Your task to perform on an android device: open app "Google Docs" Image 0: 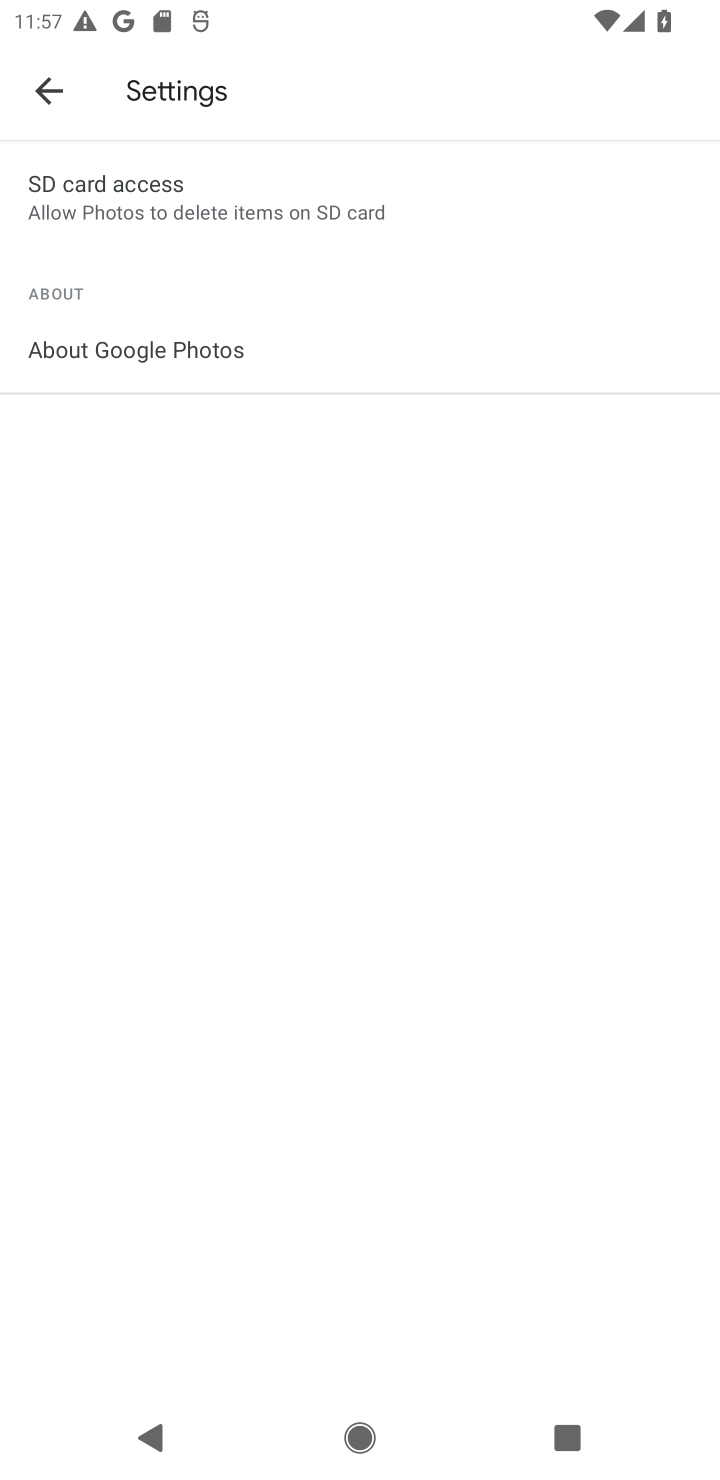
Step 0: press back button
Your task to perform on an android device: open app "Google Docs" Image 1: 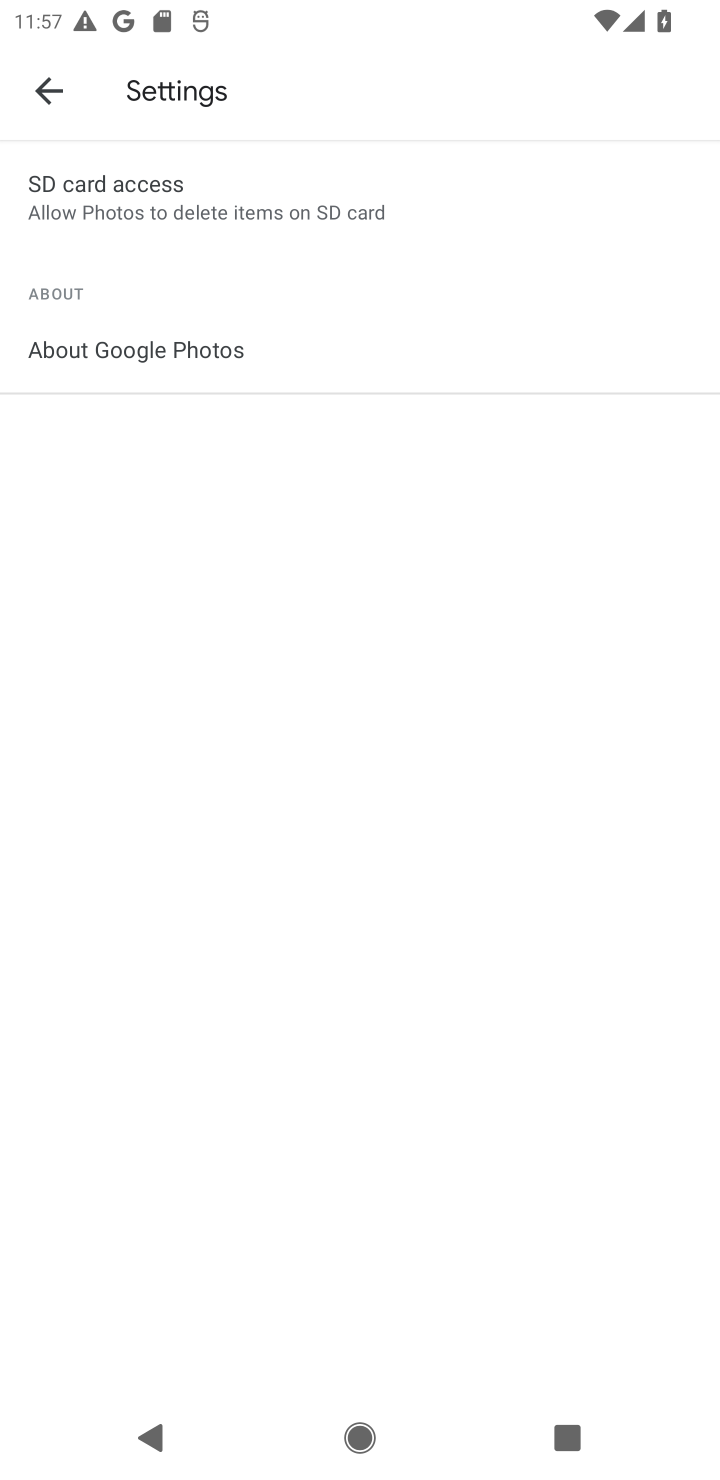
Step 1: press home button
Your task to perform on an android device: open app "Google Docs" Image 2: 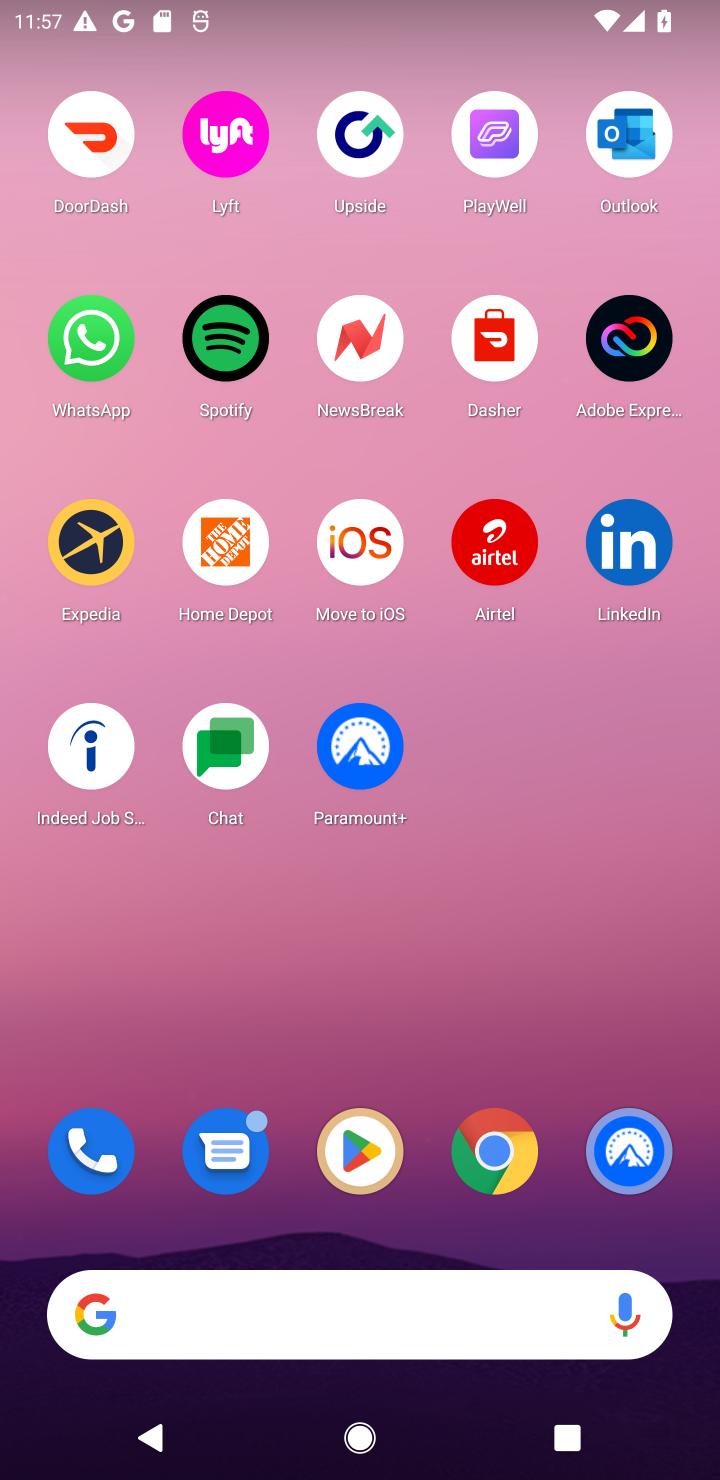
Step 2: click (351, 1118)
Your task to perform on an android device: open app "Google Docs" Image 3: 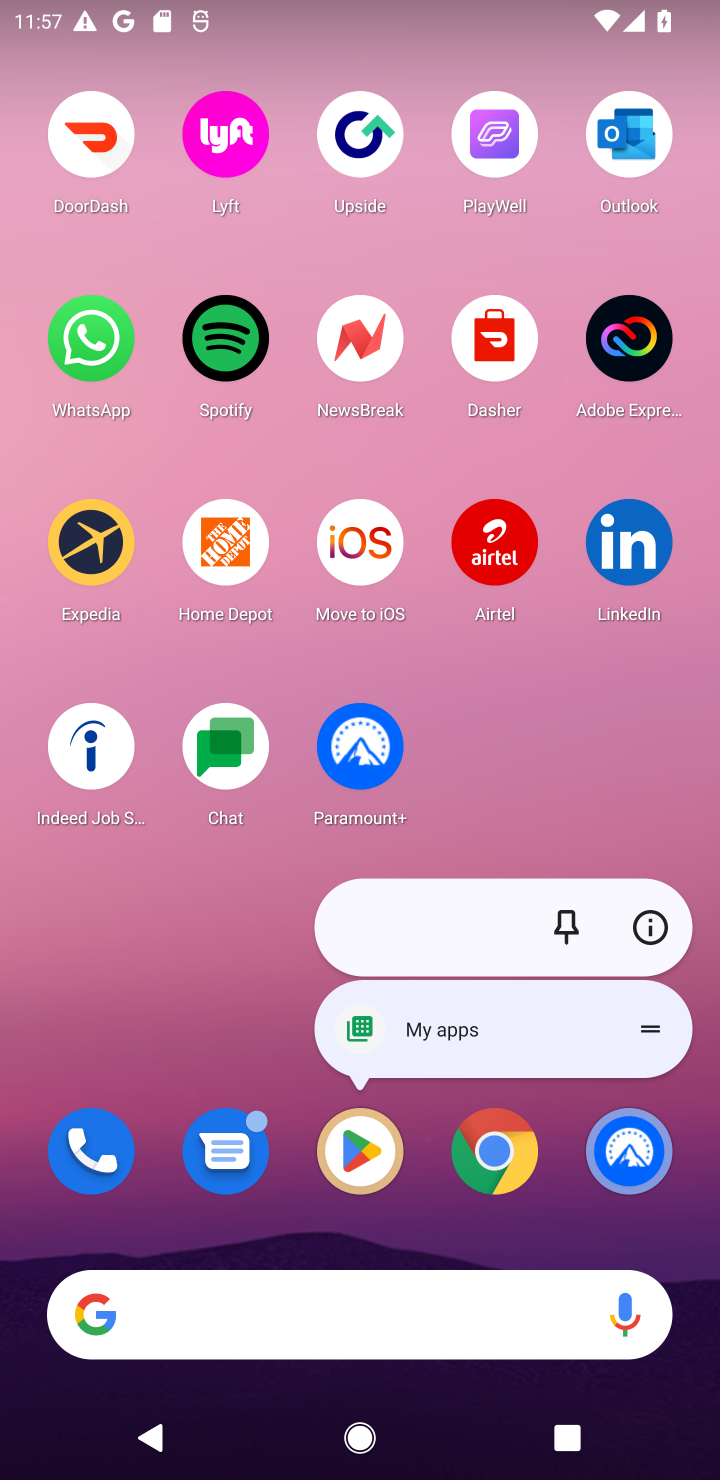
Step 3: click (360, 1134)
Your task to perform on an android device: open app "Google Docs" Image 4: 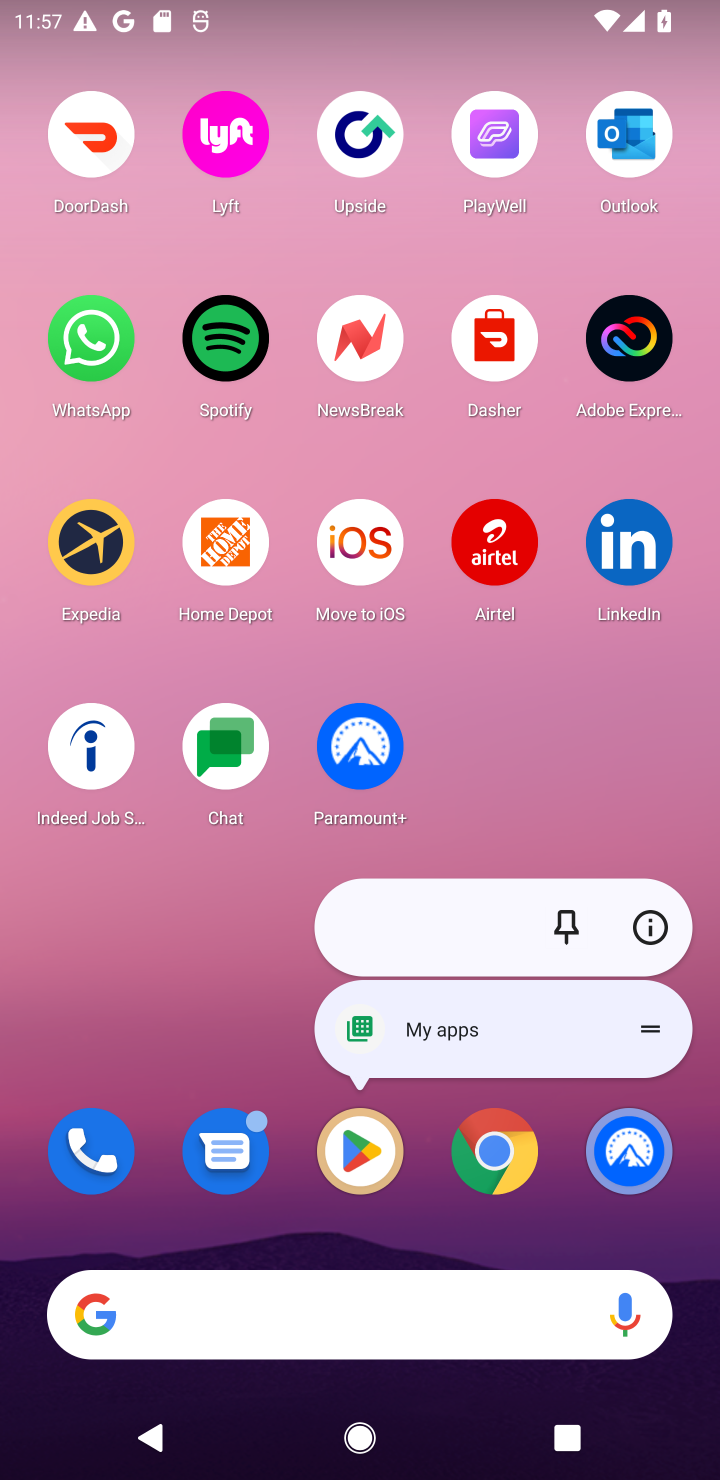
Step 4: click (360, 1134)
Your task to perform on an android device: open app "Google Docs" Image 5: 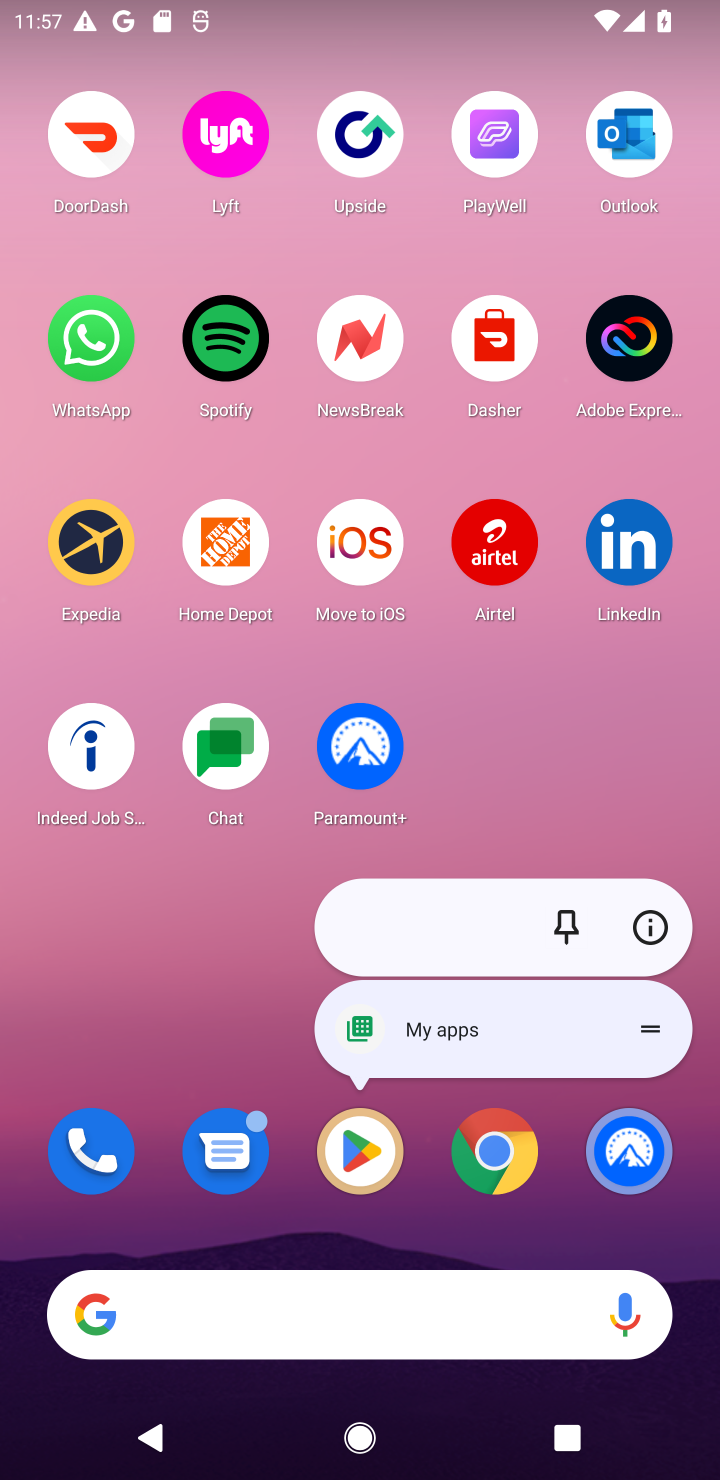
Step 5: click (358, 1162)
Your task to perform on an android device: open app "Google Docs" Image 6: 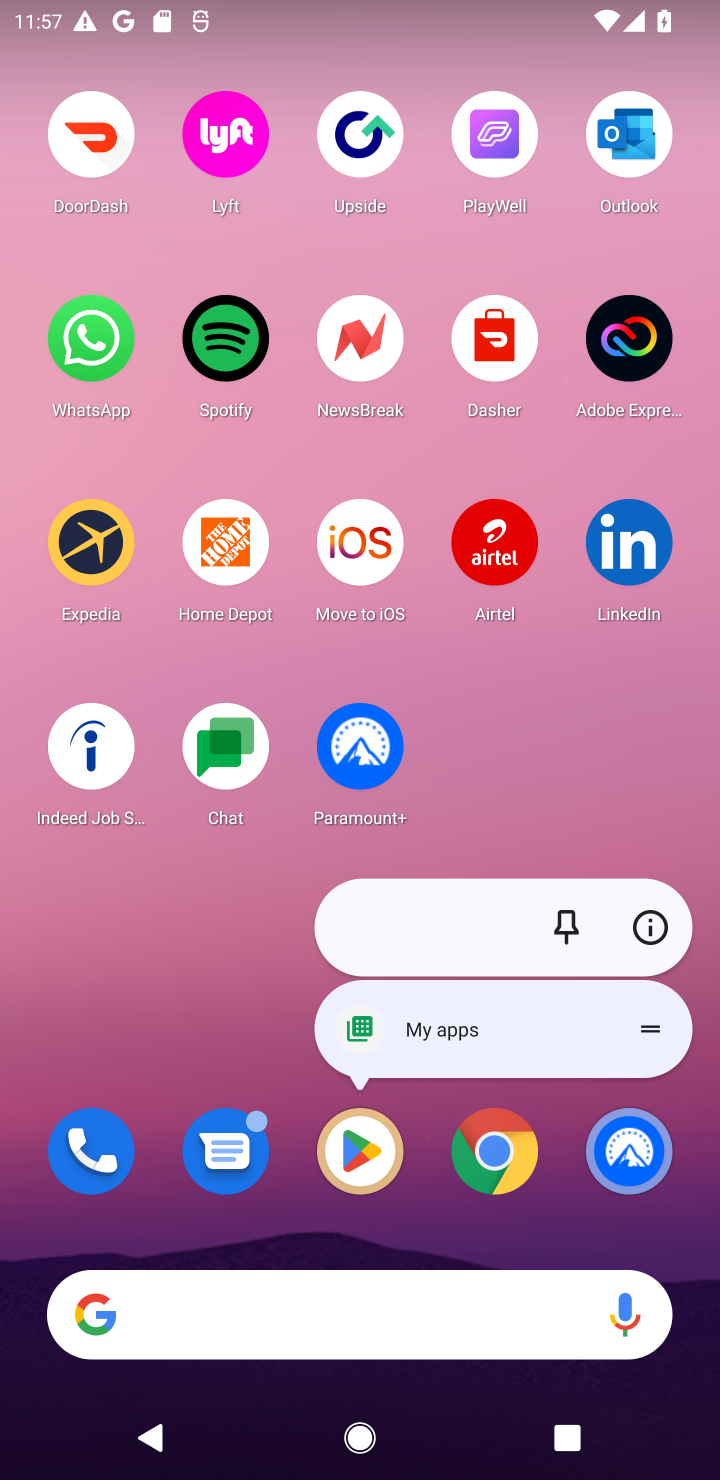
Step 6: click (360, 1169)
Your task to perform on an android device: open app "Google Docs" Image 7: 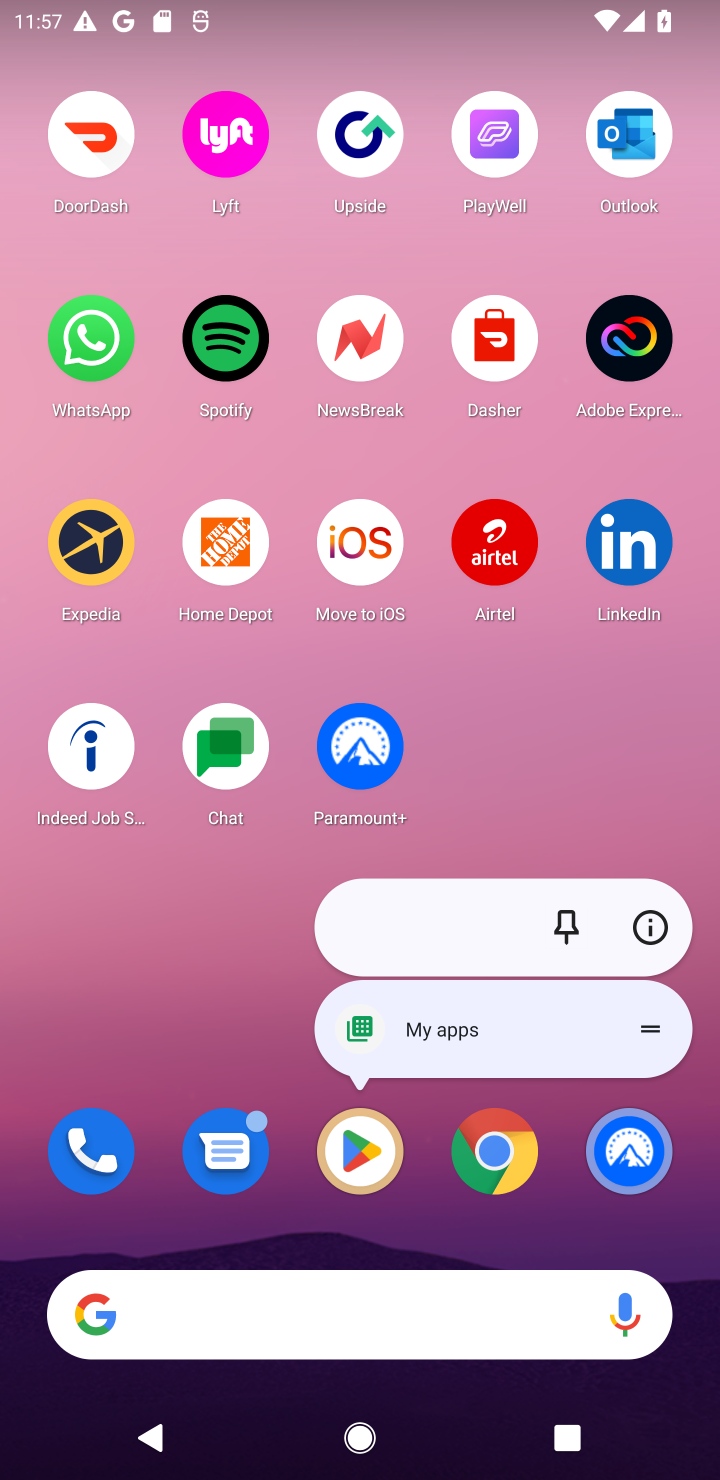
Step 7: click (379, 1152)
Your task to perform on an android device: open app "Google Docs" Image 8: 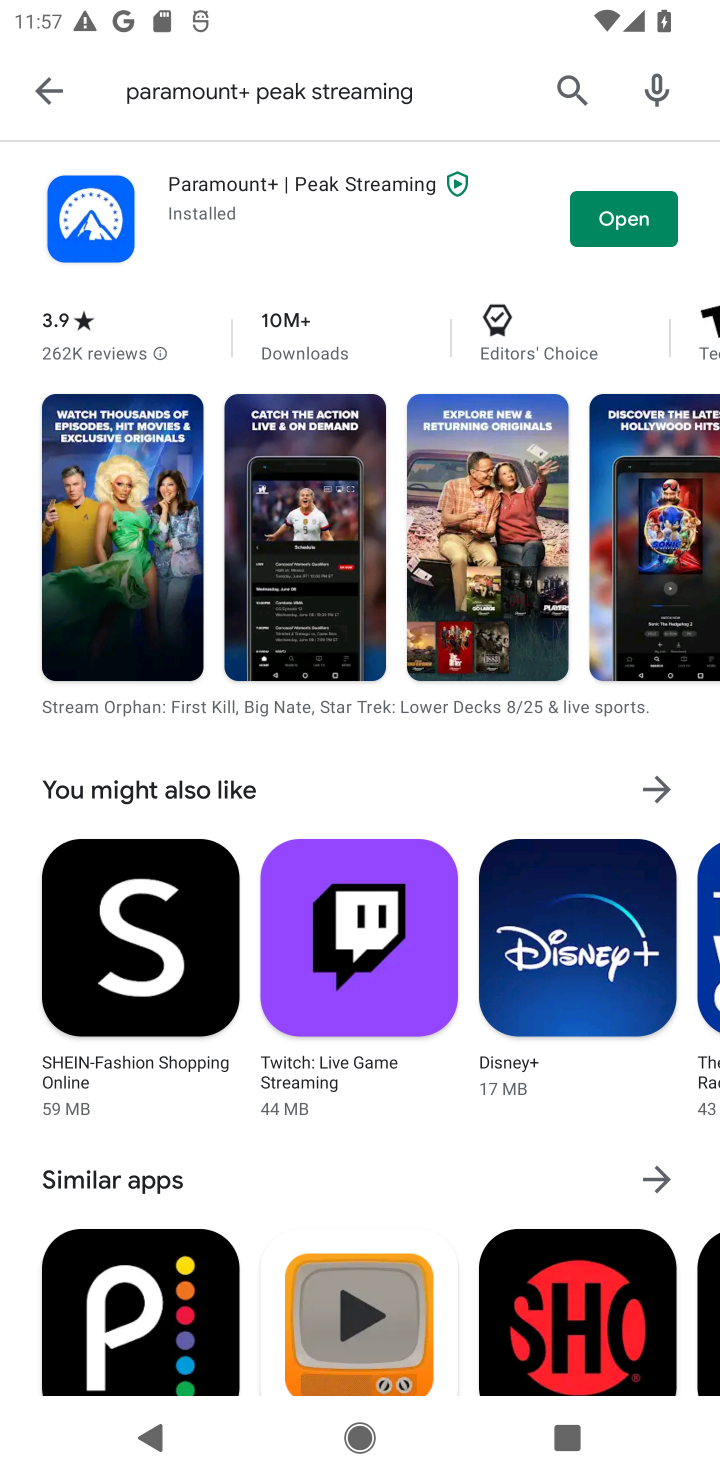
Step 8: click (569, 82)
Your task to perform on an android device: open app "Google Docs" Image 9: 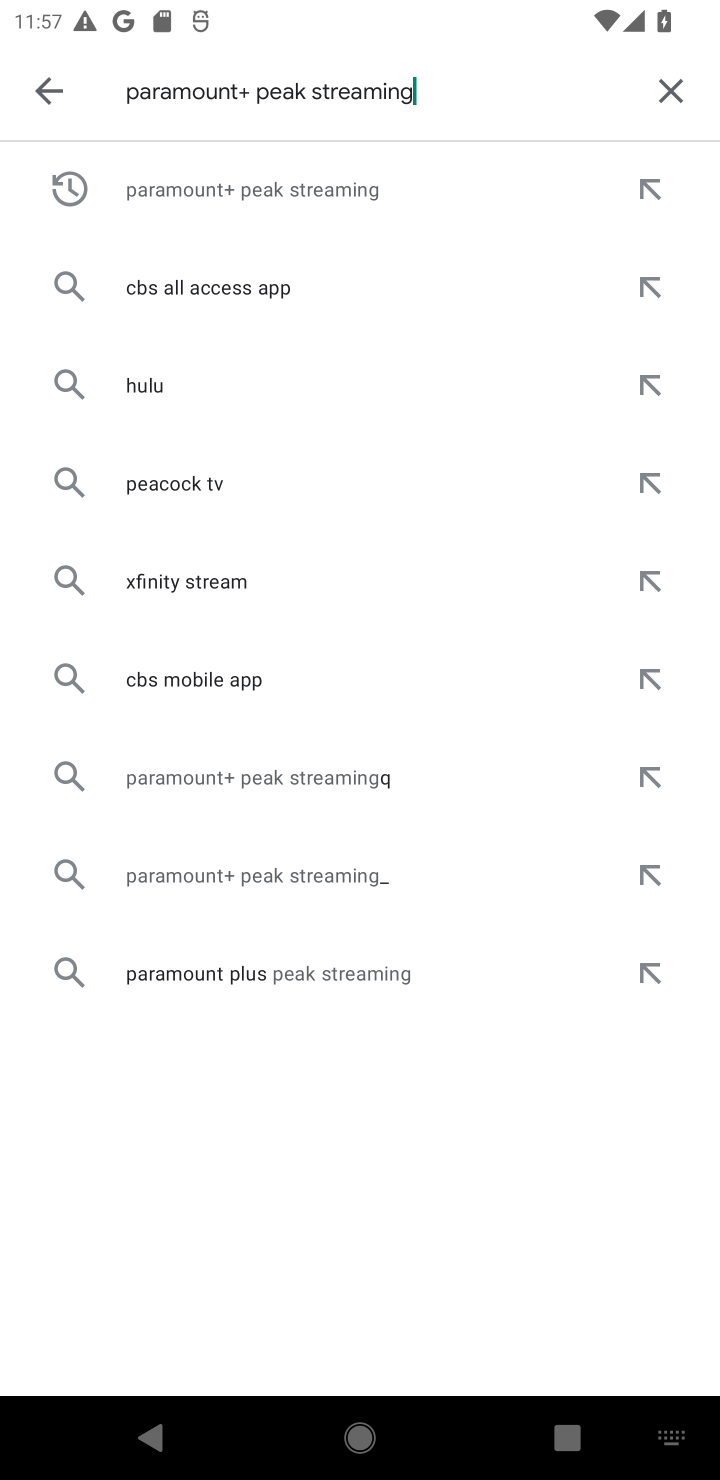
Step 9: click (660, 77)
Your task to perform on an android device: open app "Google Docs" Image 10: 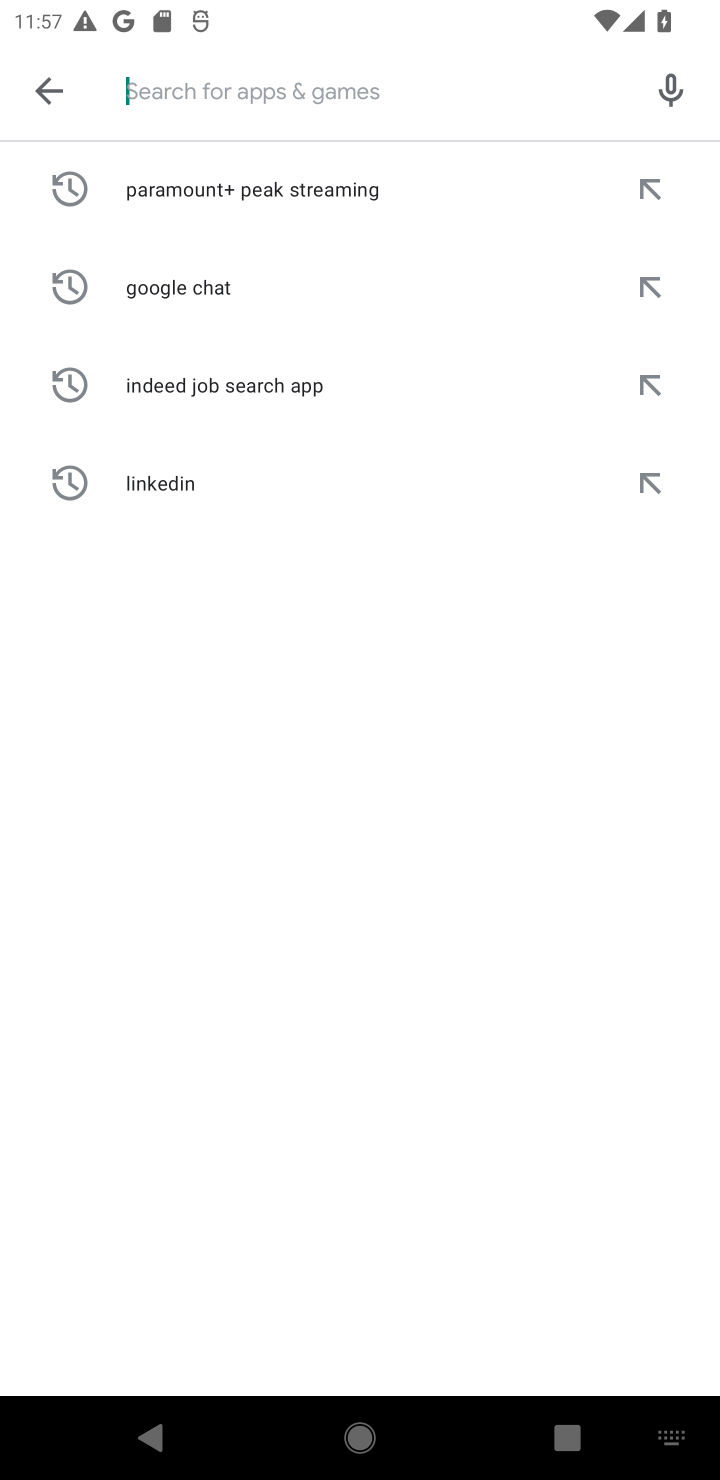
Step 10: type "Google Docs"
Your task to perform on an android device: open app "Google Docs" Image 11: 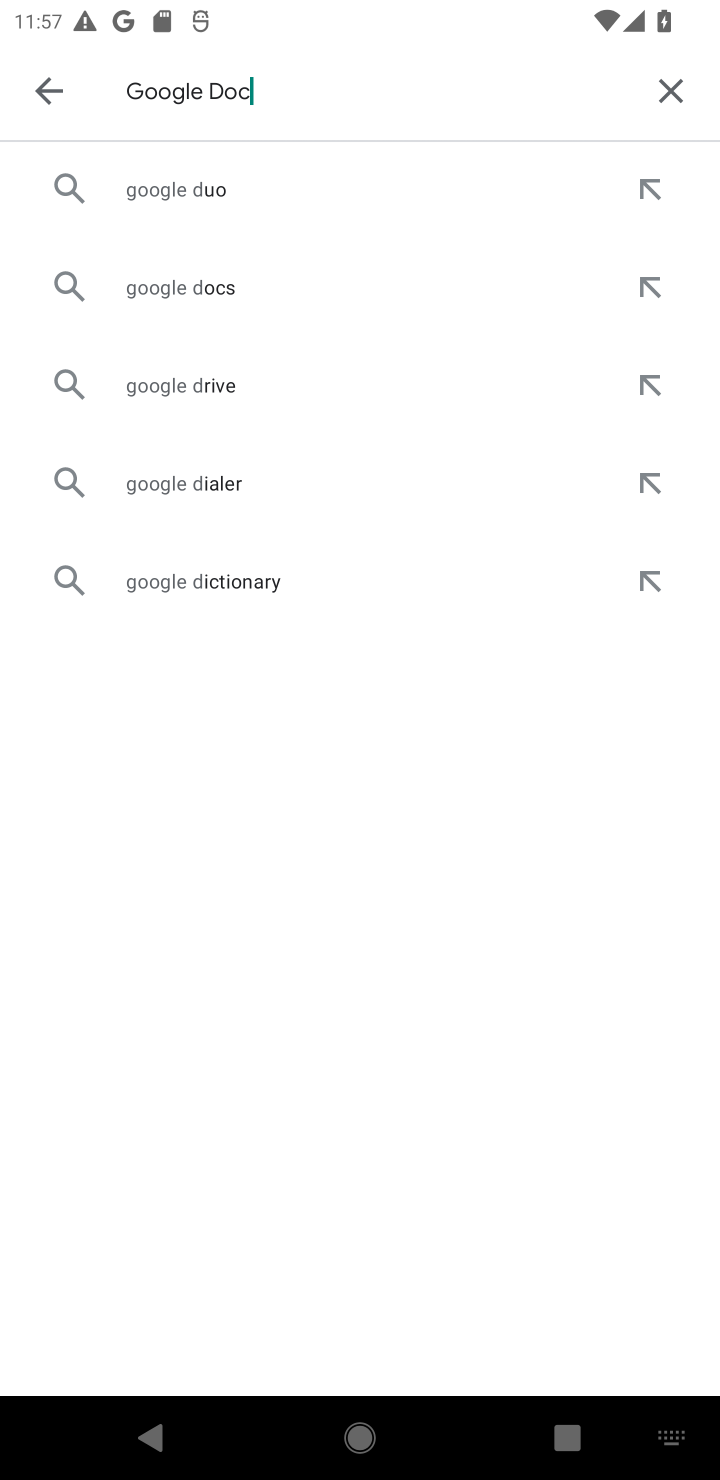
Step 11: type ""
Your task to perform on an android device: open app "Google Docs" Image 12: 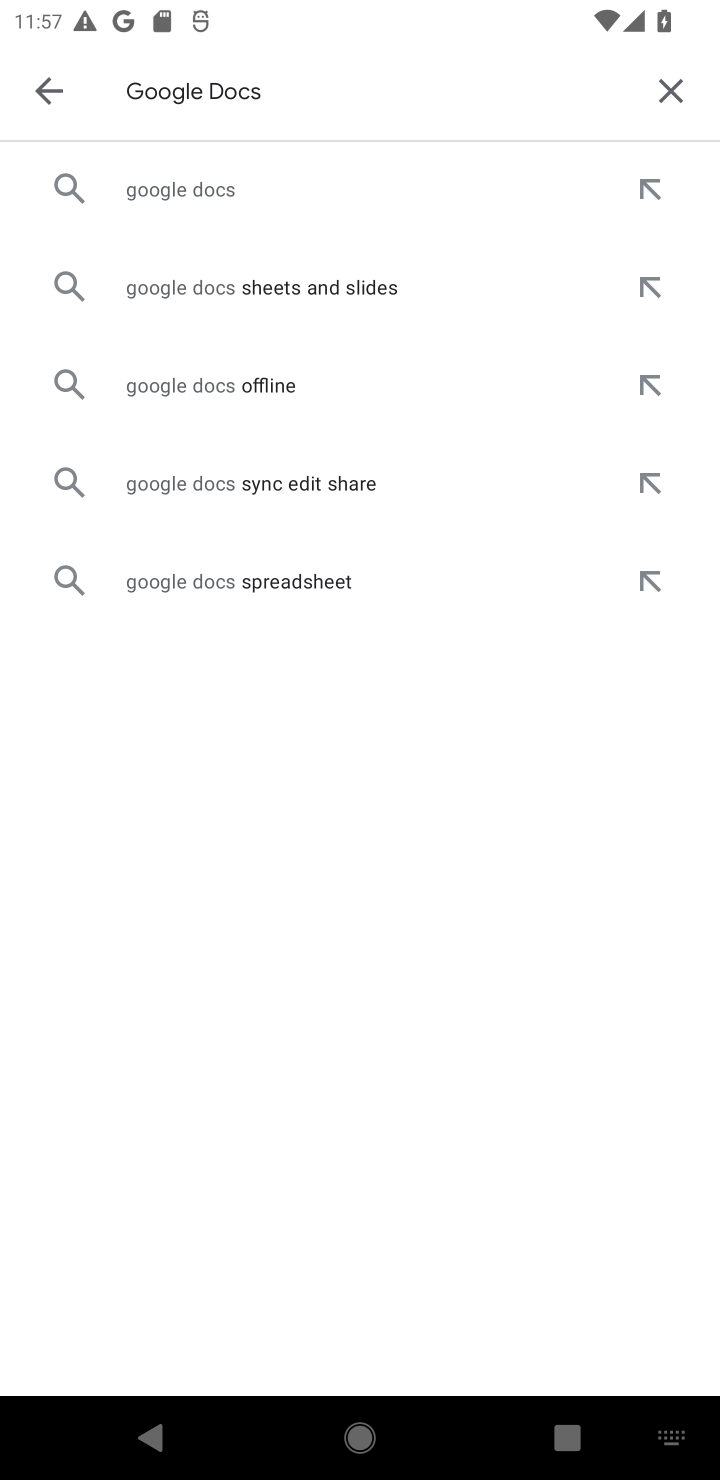
Step 12: click (233, 189)
Your task to perform on an android device: open app "Google Docs" Image 13: 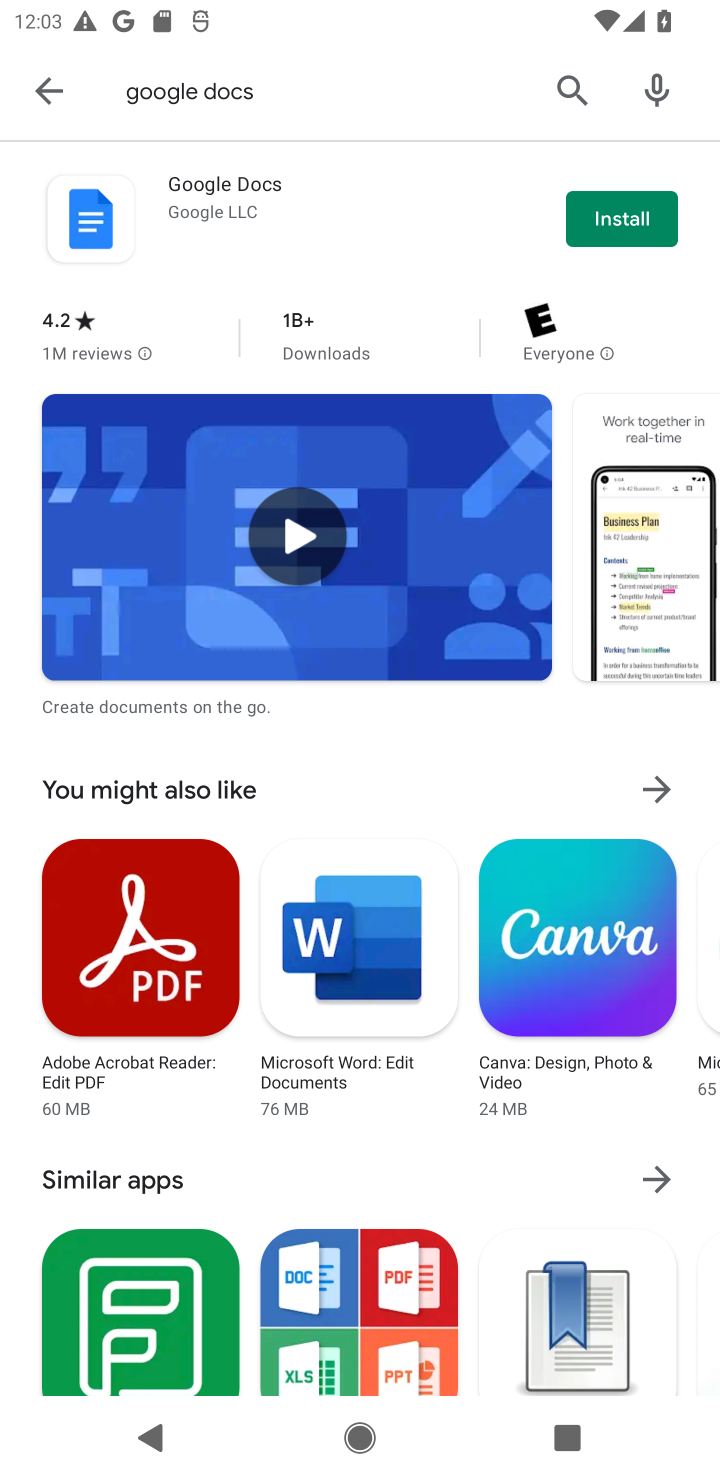
Step 13: task complete